Your task to perform on an android device: turn off airplane mode Image 0: 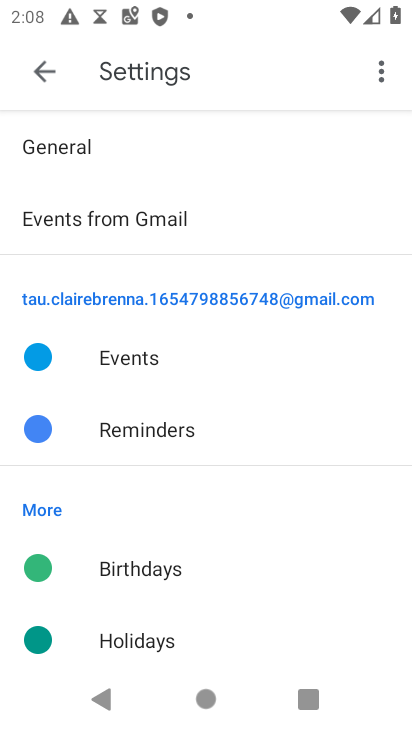
Step 0: press home button
Your task to perform on an android device: turn off airplane mode Image 1: 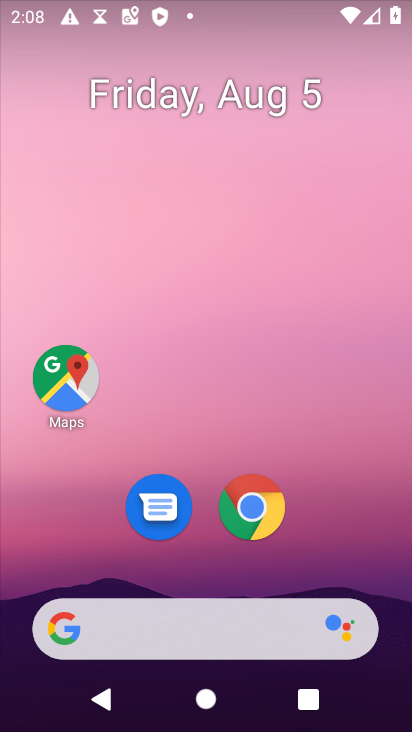
Step 1: drag from (202, 572) to (171, 81)
Your task to perform on an android device: turn off airplane mode Image 2: 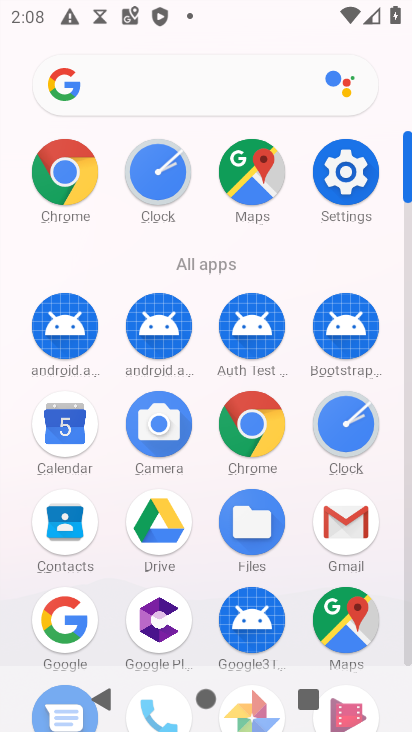
Step 2: click (349, 157)
Your task to perform on an android device: turn off airplane mode Image 3: 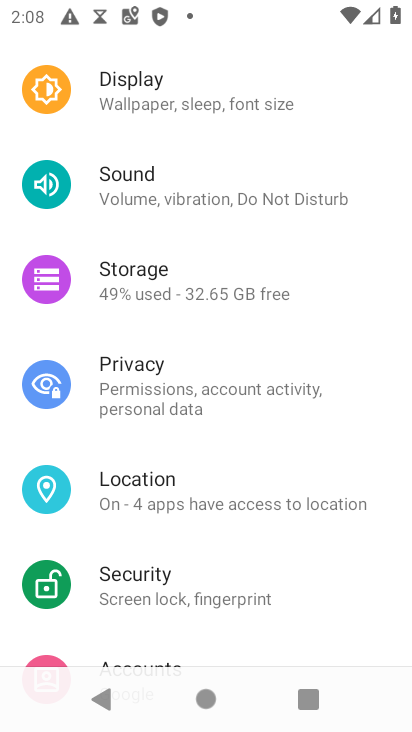
Step 3: drag from (235, 127) to (235, 425)
Your task to perform on an android device: turn off airplane mode Image 4: 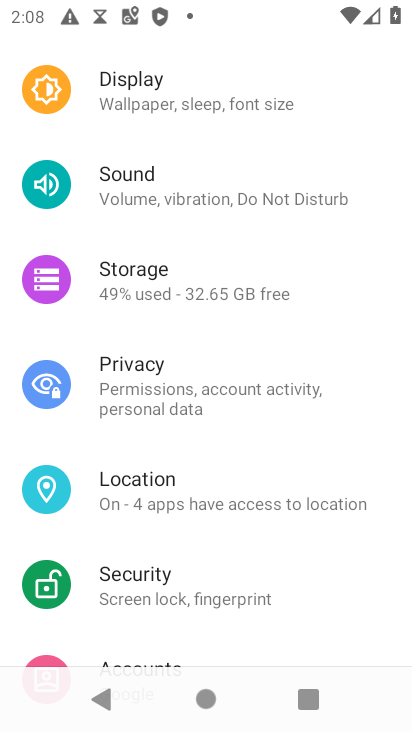
Step 4: drag from (235, 167) to (237, 453)
Your task to perform on an android device: turn off airplane mode Image 5: 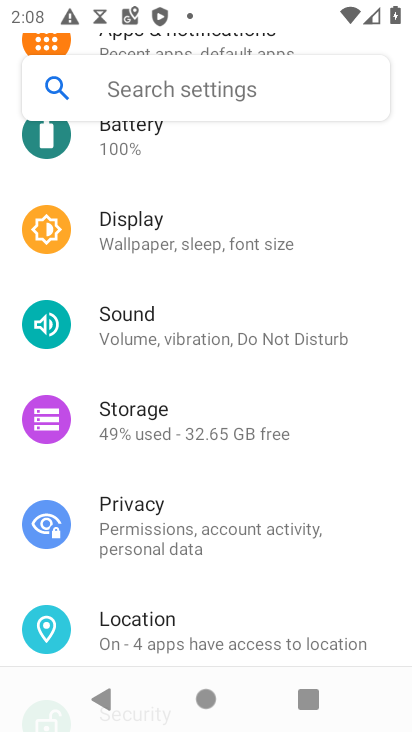
Step 5: drag from (218, 172) to (201, 606)
Your task to perform on an android device: turn off airplane mode Image 6: 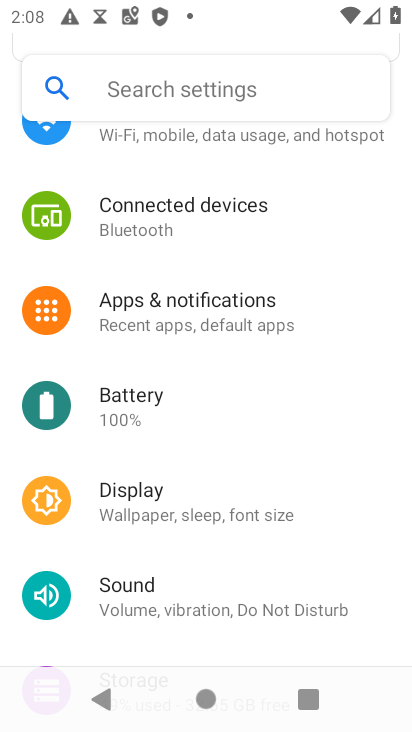
Step 6: click (253, 139)
Your task to perform on an android device: turn off airplane mode Image 7: 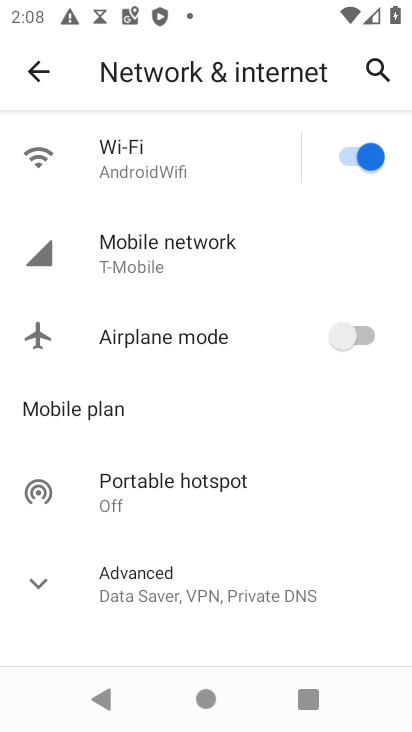
Step 7: task complete